Your task to perform on an android device: turn on bluetooth scan Image 0: 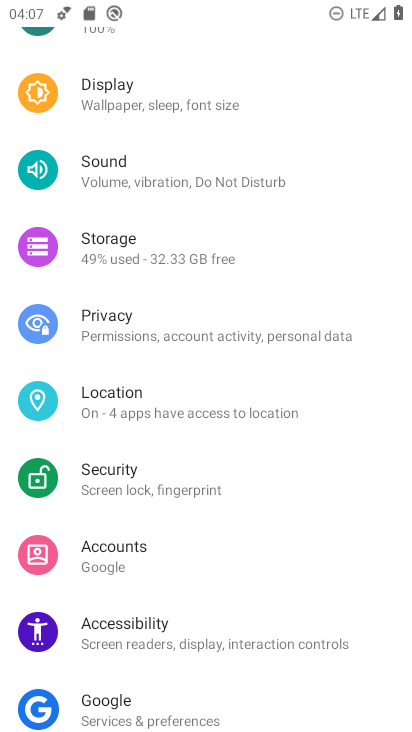
Step 0: click (191, 406)
Your task to perform on an android device: turn on bluetooth scan Image 1: 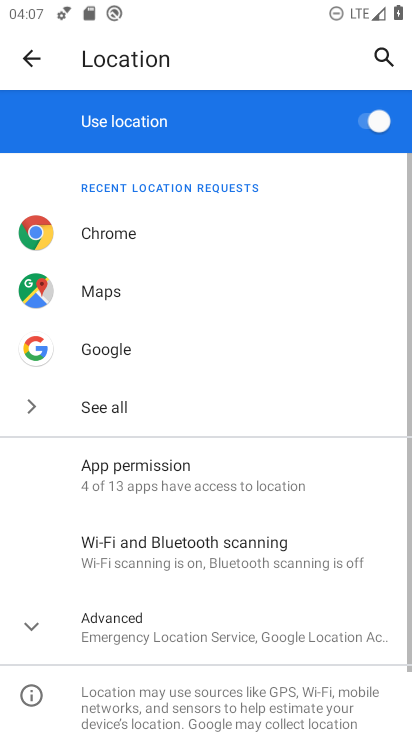
Step 1: click (171, 550)
Your task to perform on an android device: turn on bluetooth scan Image 2: 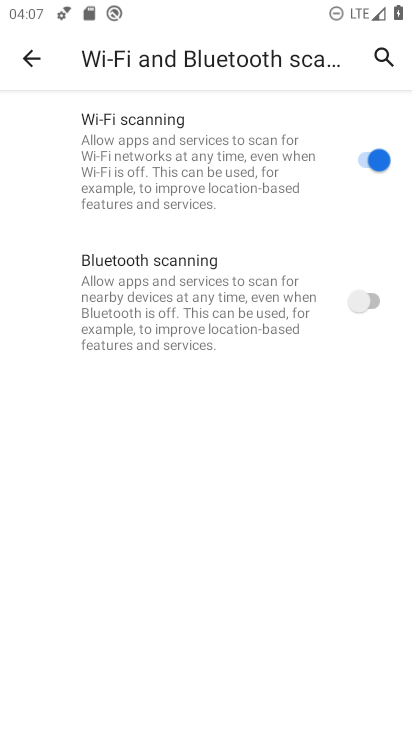
Step 2: click (377, 297)
Your task to perform on an android device: turn on bluetooth scan Image 3: 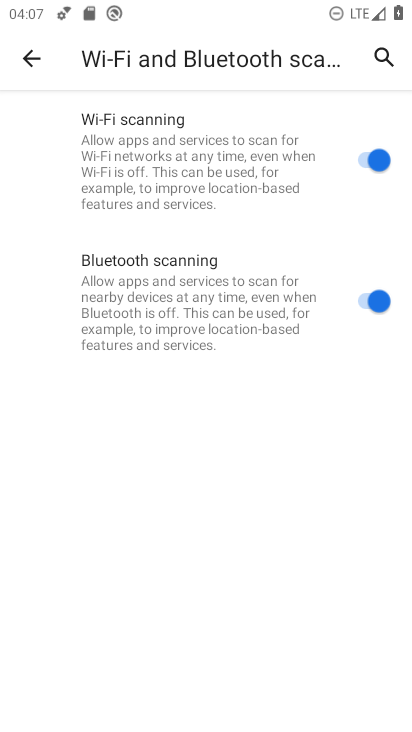
Step 3: task complete